Your task to perform on an android device: Open display settings Image 0: 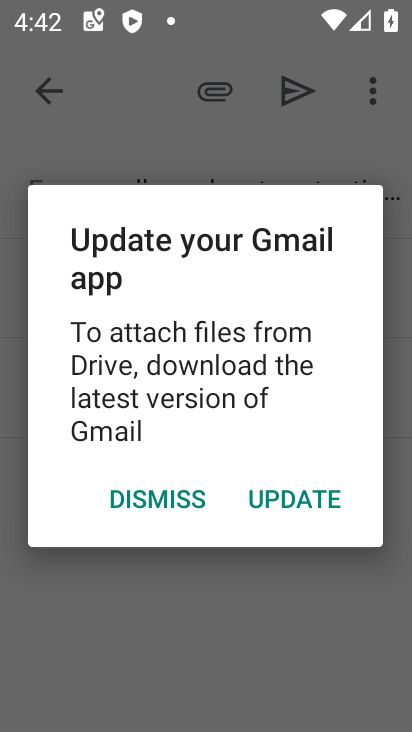
Step 0: press home button
Your task to perform on an android device: Open display settings Image 1: 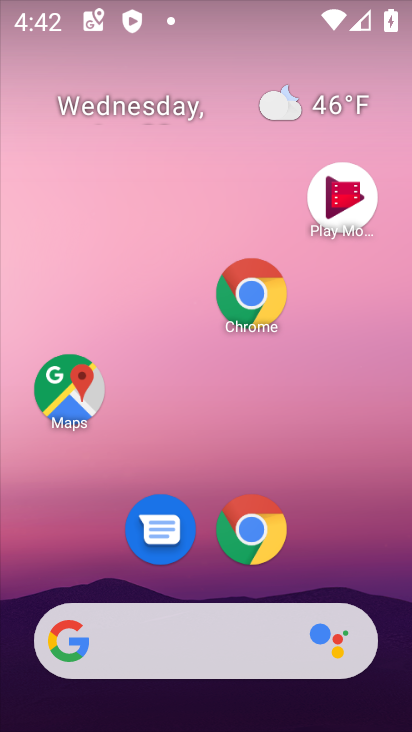
Step 1: drag from (320, 582) to (367, 97)
Your task to perform on an android device: Open display settings Image 2: 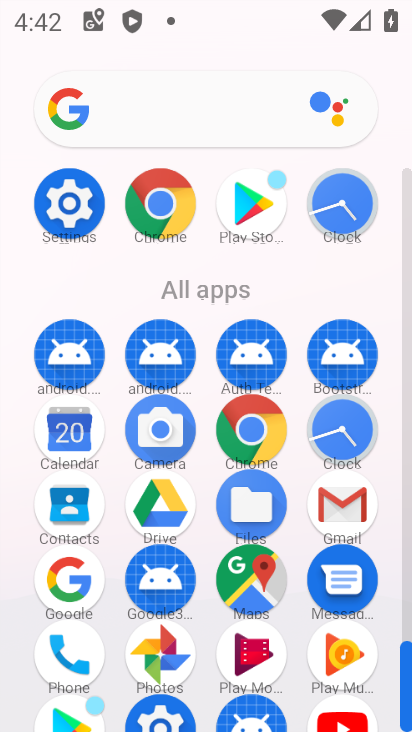
Step 2: click (75, 218)
Your task to perform on an android device: Open display settings Image 3: 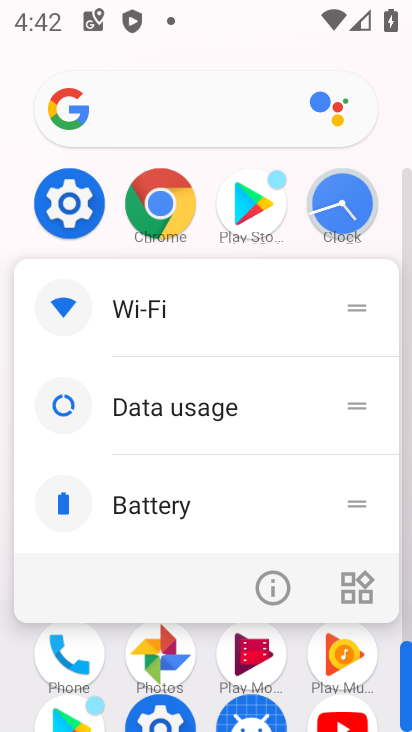
Step 3: click (77, 215)
Your task to perform on an android device: Open display settings Image 4: 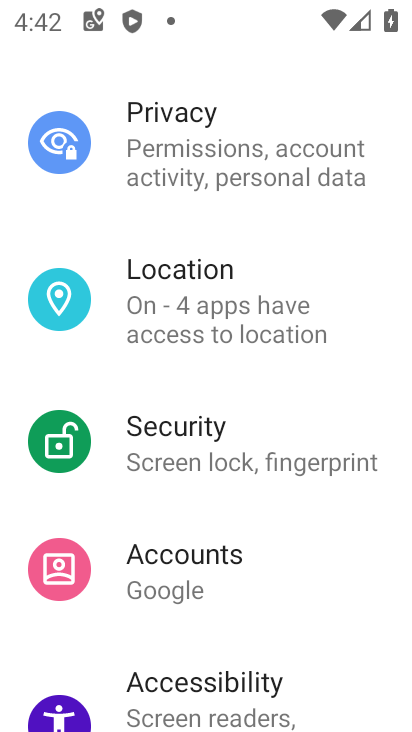
Step 4: drag from (297, 267) to (322, 623)
Your task to perform on an android device: Open display settings Image 5: 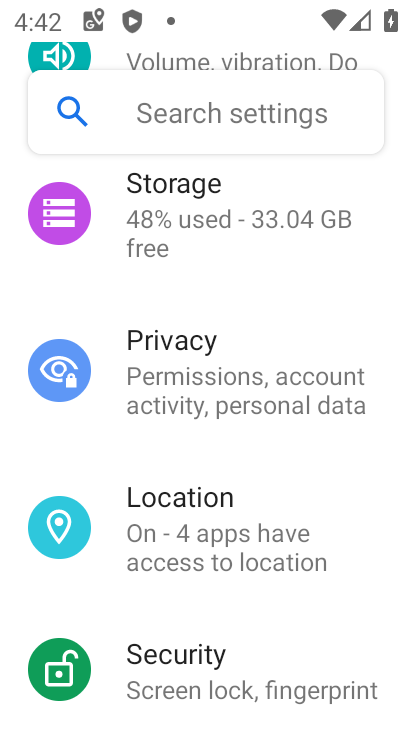
Step 5: drag from (312, 220) to (314, 621)
Your task to perform on an android device: Open display settings Image 6: 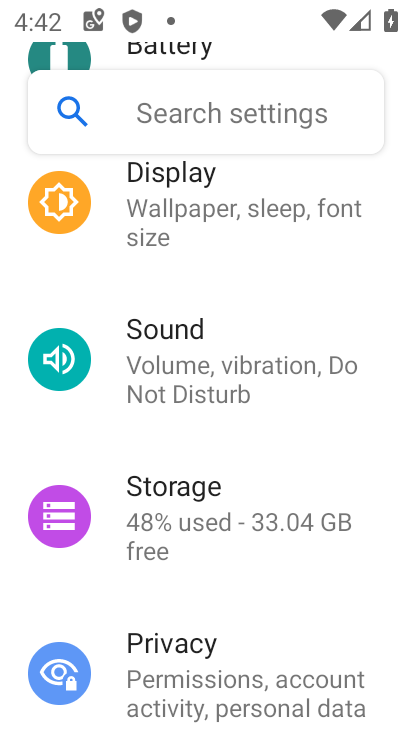
Step 6: click (219, 216)
Your task to perform on an android device: Open display settings Image 7: 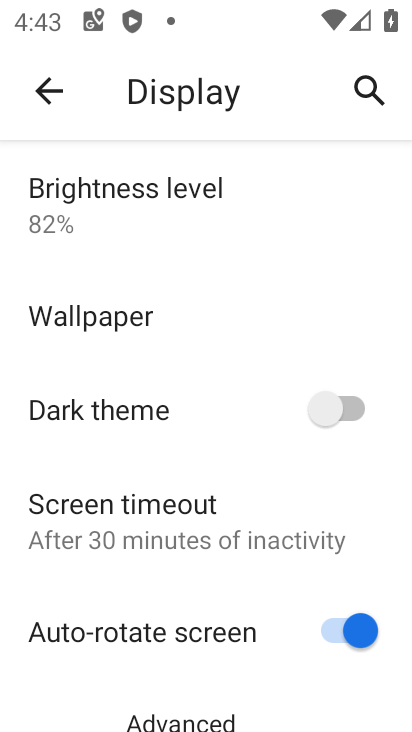
Step 7: task complete